Your task to perform on an android device: turn on translation in the chrome app Image 0: 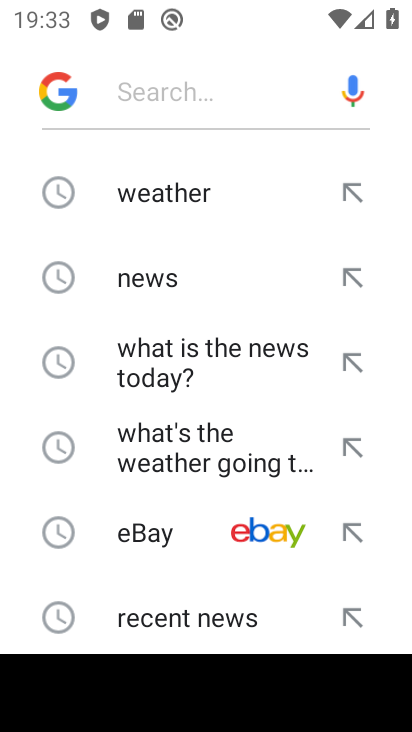
Step 0: press home button
Your task to perform on an android device: turn on translation in the chrome app Image 1: 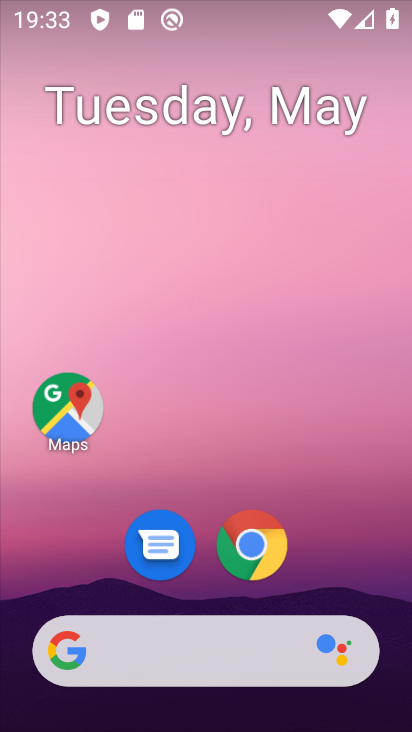
Step 1: drag from (338, 586) to (310, 0)
Your task to perform on an android device: turn on translation in the chrome app Image 2: 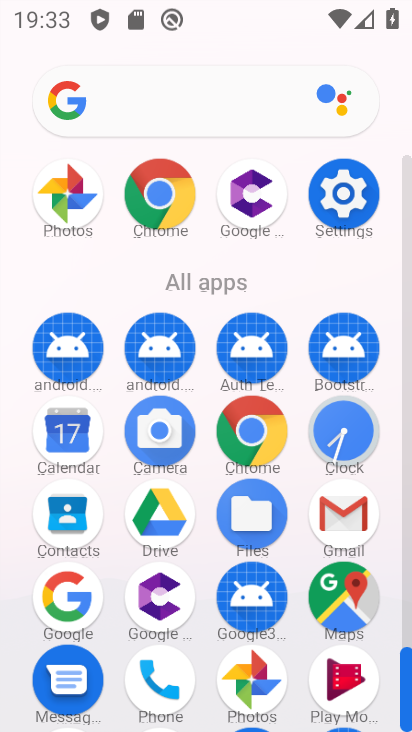
Step 2: click (168, 190)
Your task to perform on an android device: turn on translation in the chrome app Image 3: 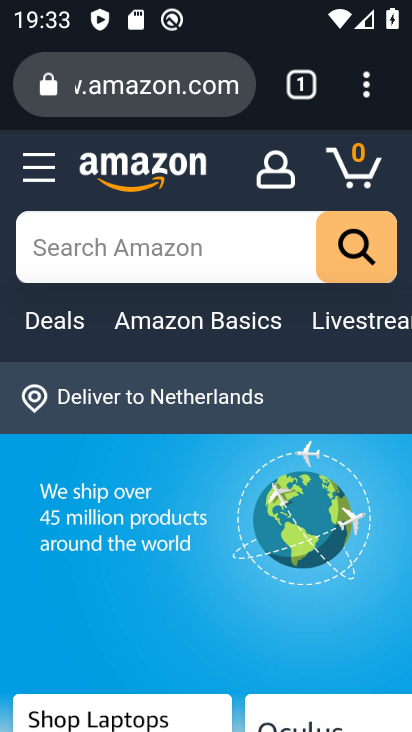
Step 3: click (362, 118)
Your task to perform on an android device: turn on translation in the chrome app Image 4: 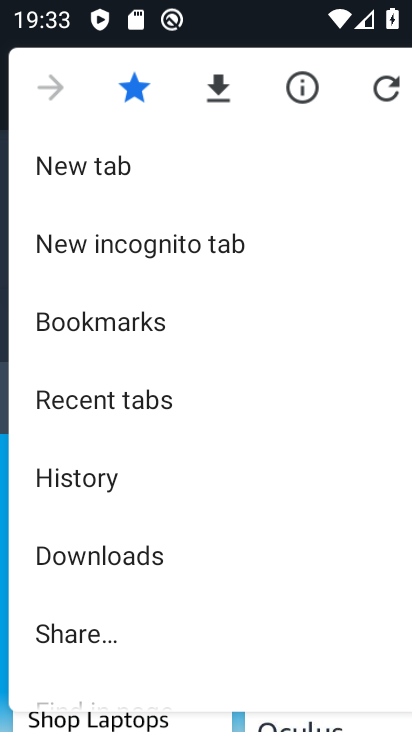
Step 4: drag from (270, 624) to (260, 217)
Your task to perform on an android device: turn on translation in the chrome app Image 5: 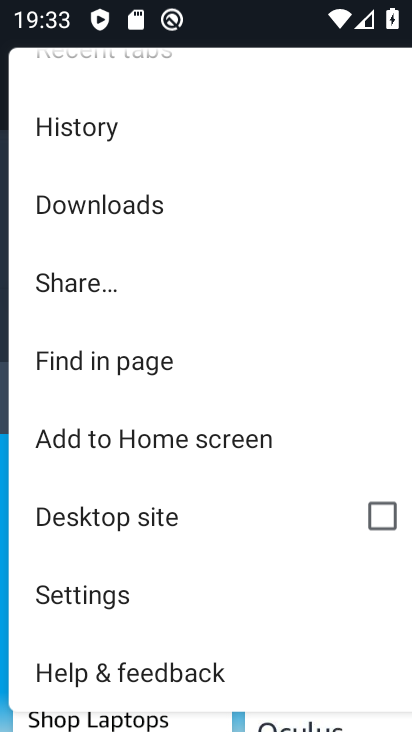
Step 5: click (153, 596)
Your task to perform on an android device: turn on translation in the chrome app Image 6: 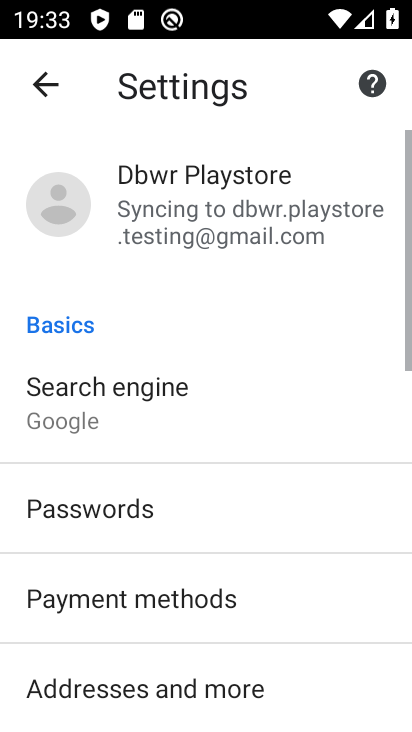
Step 6: drag from (202, 630) to (170, 126)
Your task to perform on an android device: turn on translation in the chrome app Image 7: 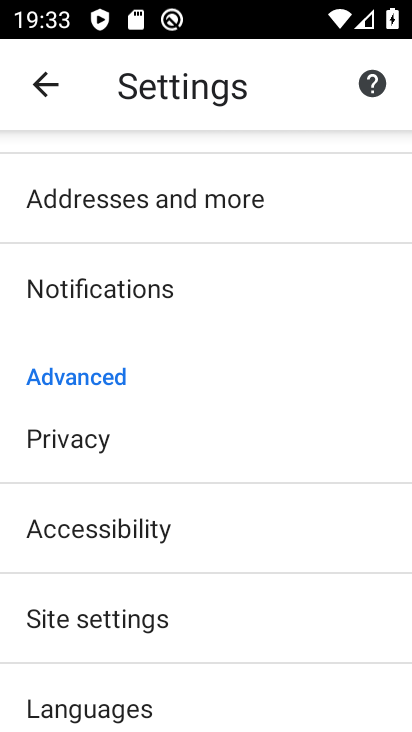
Step 7: click (127, 692)
Your task to perform on an android device: turn on translation in the chrome app Image 8: 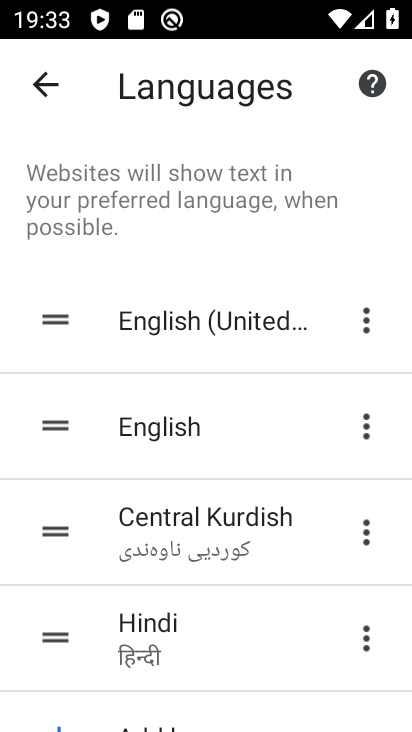
Step 8: drag from (294, 503) to (307, 0)
Your task to perform on an android device: turn on translation in the chrome app Image 9: 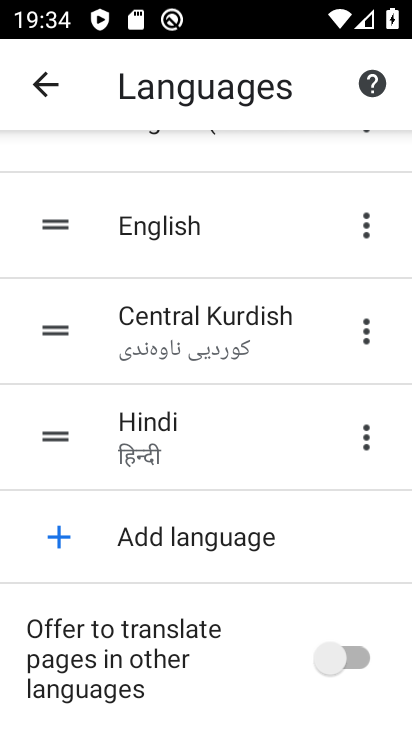
Step 9: click (325, 664)
Your task to perform on an android device: turn on translation in the chrome app Image 10: 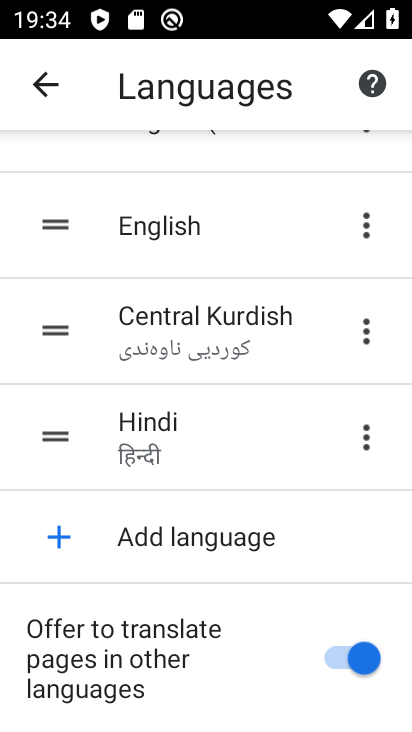
Step 10: task complete